Your task to perform on an android device: Is it going to rain tomorrow? Image 0: 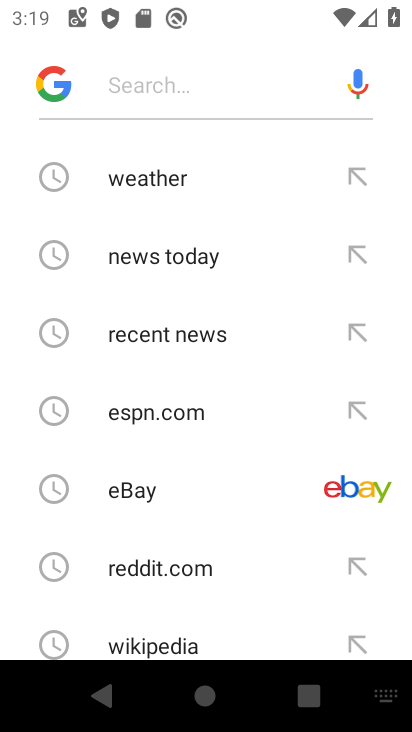
Step 0: press home button
Your task to perform on an android device: Is it going to rain tomorrow? Image 1: 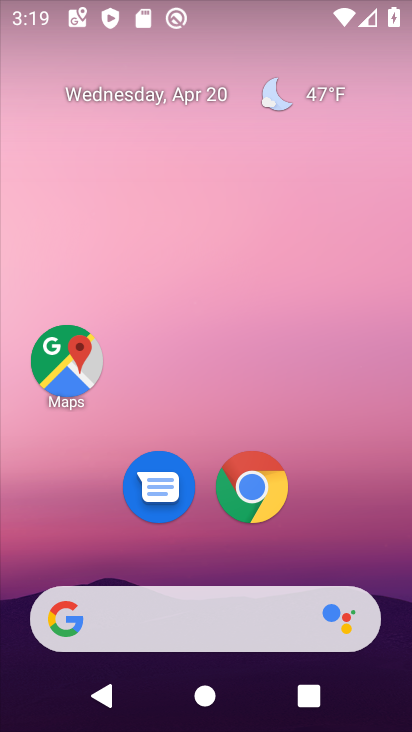
Step 1: click (286, 491)
Your task to perform on an android device: Is it going to rain tomorrow? Image 2: 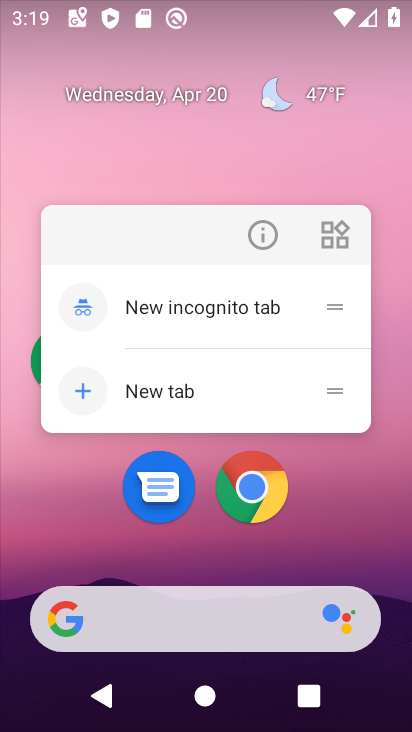
Step 2: click (288, 494)
Your task to perform on an android device: Is it going to rain tomorrow? Image 3: 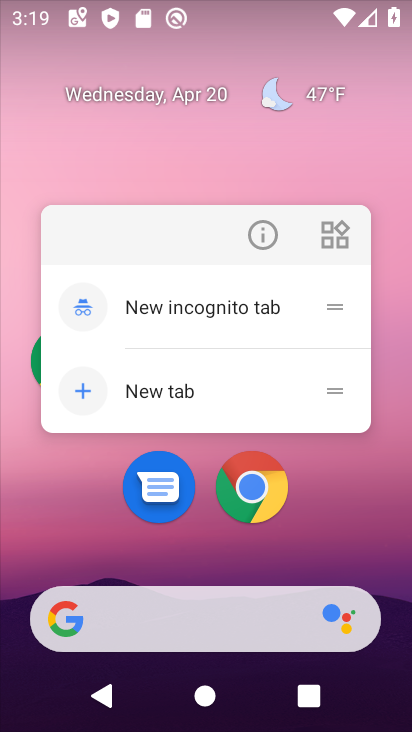
Step 3: click (288, 494)
Your task to perform on an android device: Is it going to rain tomorrow? Image 4: 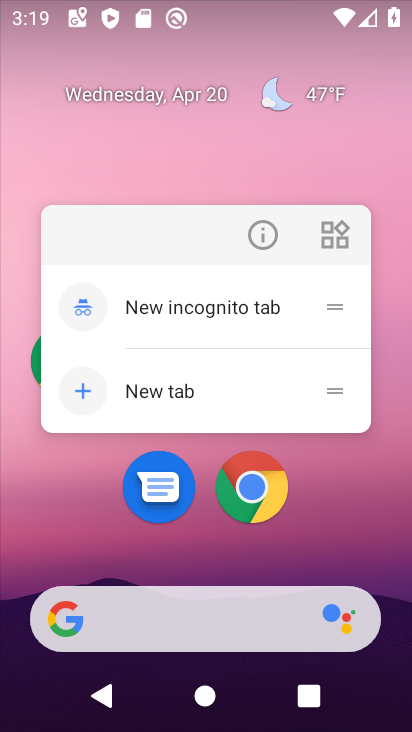
Step 4: drag from (358, 544) to (377, 196)
Your task to perform on an android device: Is it going to rain tomorrow? Image 5: 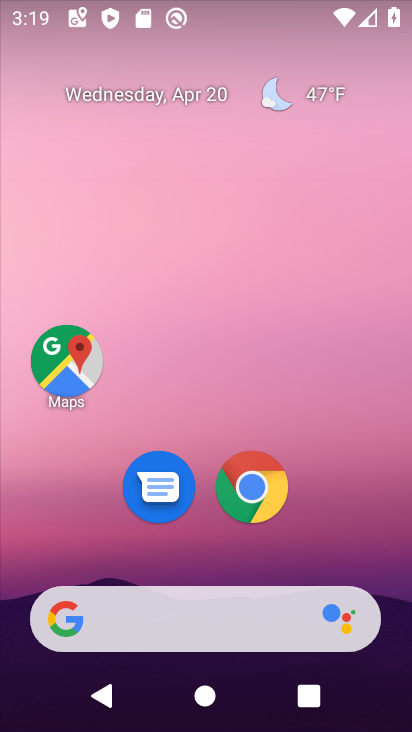
Step 5: drag from (351, 524) to (351, 228)
Your task to perform on an android device: Is it going to rain tomorrow? Image 6: 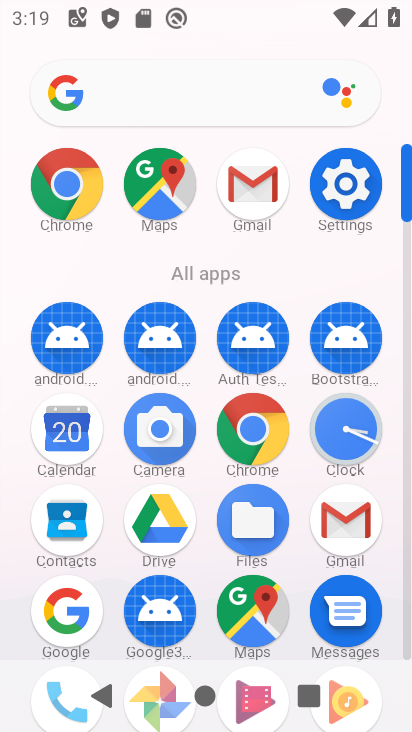
Step 6: click (260, 421)
Your task to perform on an android device: Is it going to rain tomorrow? Image 7: 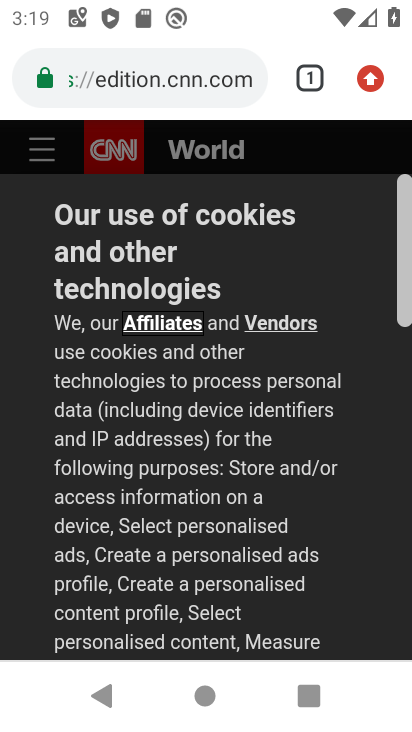
Step 7: click (180, 71)
Your task to perform on an android device: Is it going to rain tomorrow? Image 8: 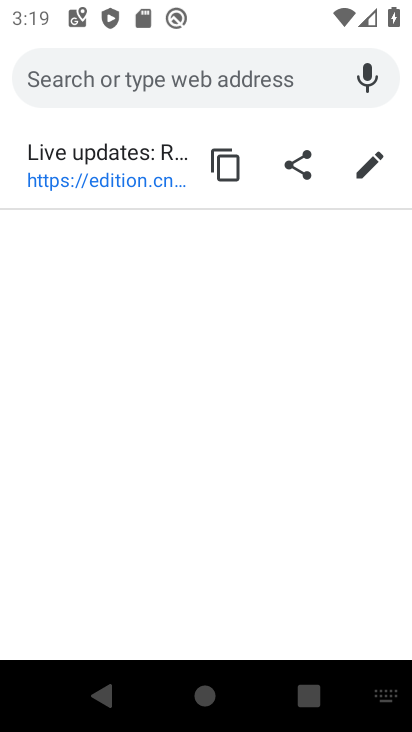
Step 8: type "is it going to rain tomorrow"
Your task to perform on an android device: Is it going to rain tomorrow? Image 9: 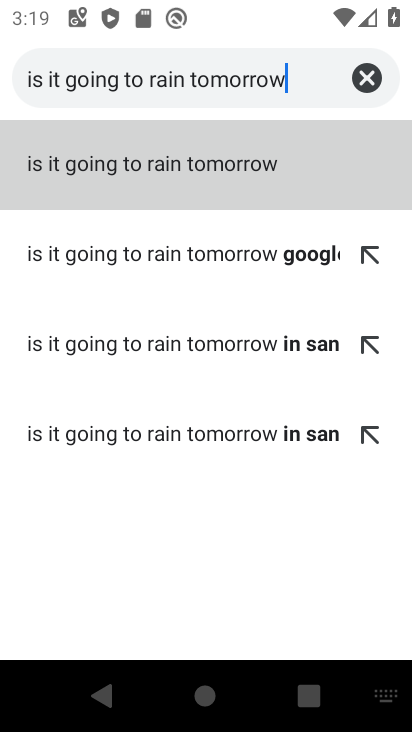
Step 9: click (175, 174)
Your task to perform on an android device: Is it going to rain tomorrow? Image 10: 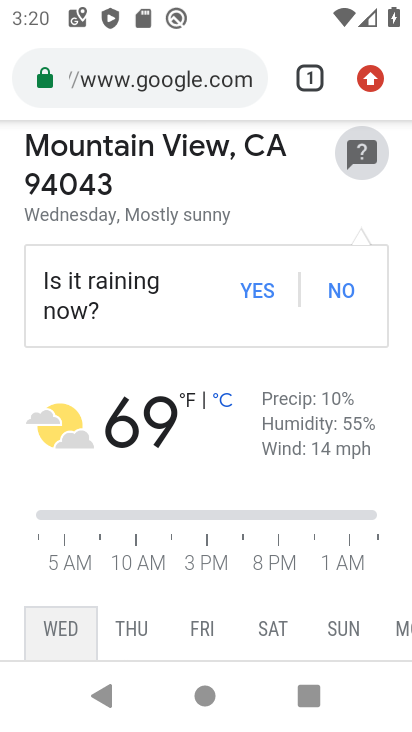
Step 10: task complete